Your task to perform on an android device: check storage Image 0: 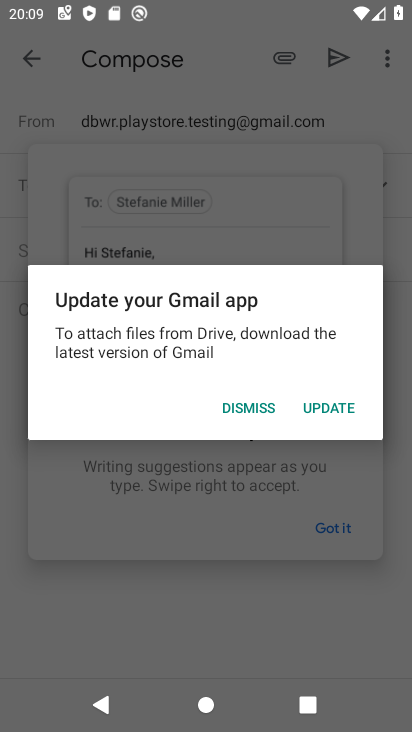
Step 0: press home button
Your task to perform on an android device: check storage Image 1: 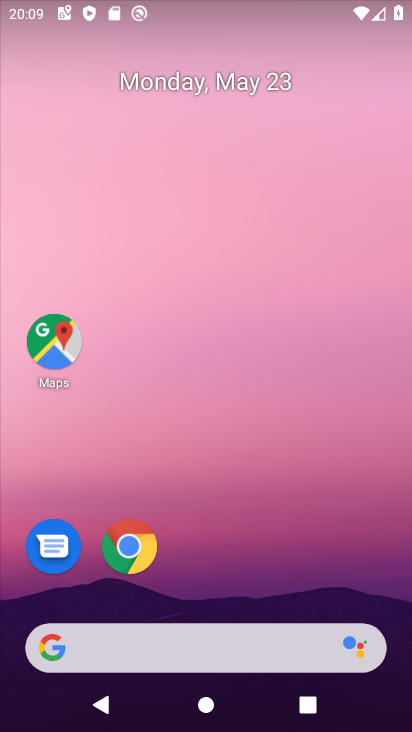
Step 1: drag from (369, 574) to (358, 220)
Your task to perform on an android device: check storage Image 2: 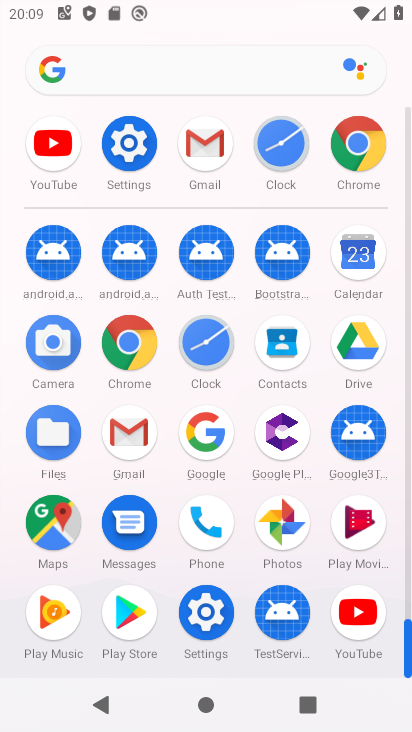
Step 2: click (211, 622)
Your task to perform on an android device: check storage Image 3: 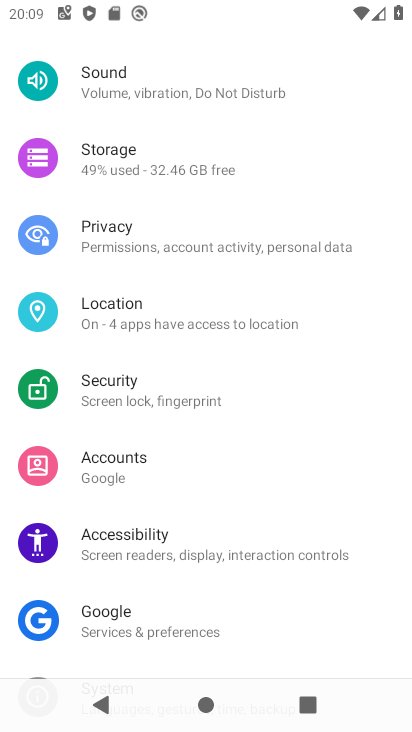
Step 3: drag from (332, 608) to (348, 485)
Your task to perform on an android device: check storage Image 4: 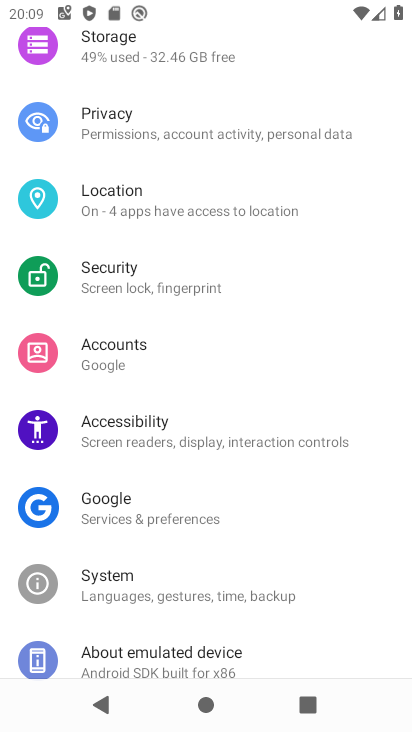
Step 4: drag from (362, 620) to (350, 492)
Your task to perform on an android device: check storage Image 5: 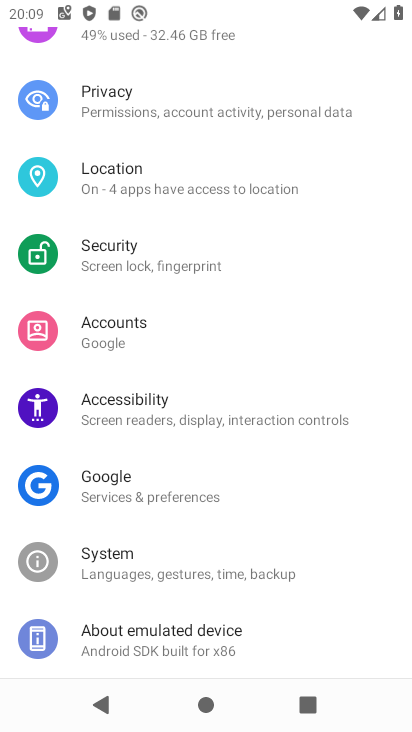
Step 5: drag from (358, 418) to (352, 497)
Your task to perform on an android device: check storage Image 6: 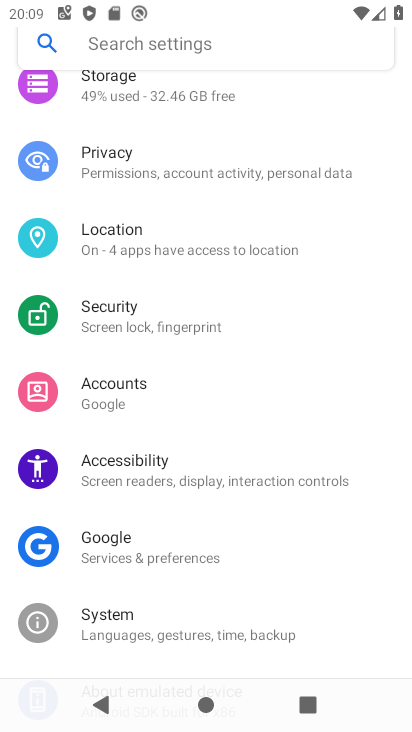
Step 6: drag from (371, 340) to (372, 433)
Your task to perform on an android device: check storage Image 7: 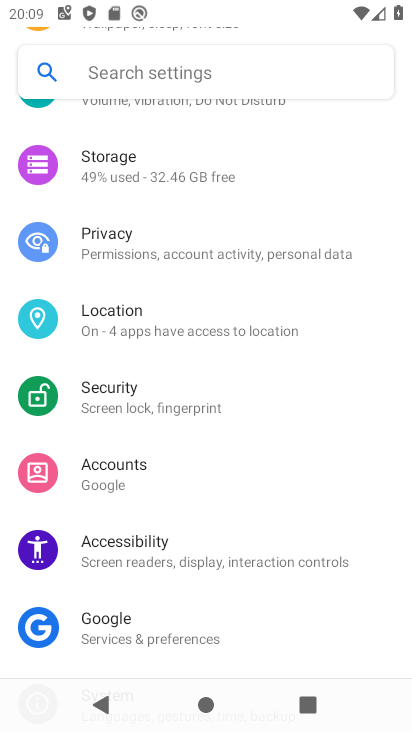
Step 7: drag from (382, 349) to (381, 431)
Your task to perform on an android device: check storage Image 8: 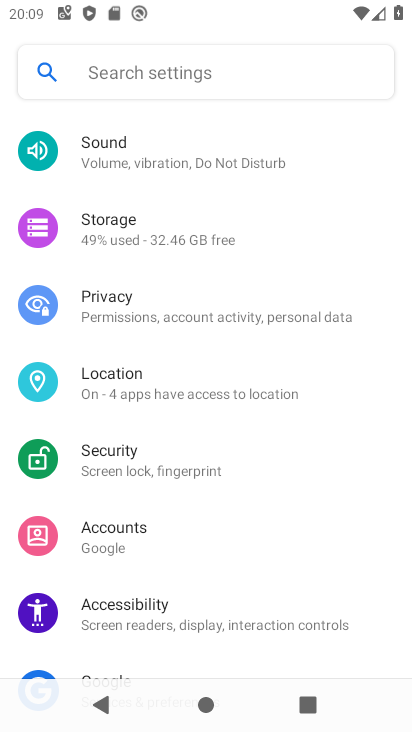
Step 8: drag from (385, 323) to (378, 399)
Your task to perform on an android device: check storage Image 9: 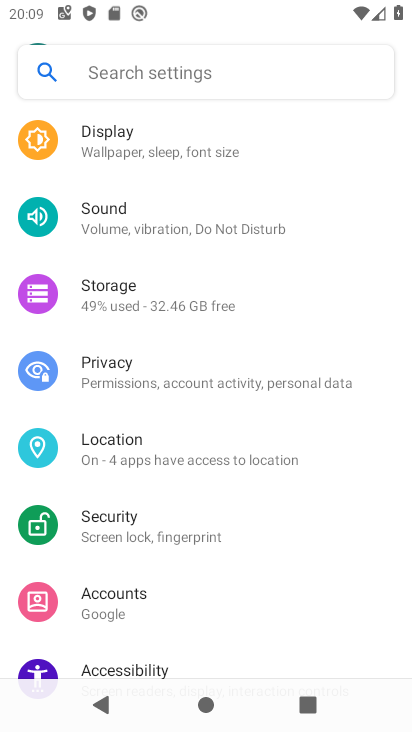
Step 9: drag from (385, 346) to (385, 400)
Your task to perform on an android device: check storage Image 10: 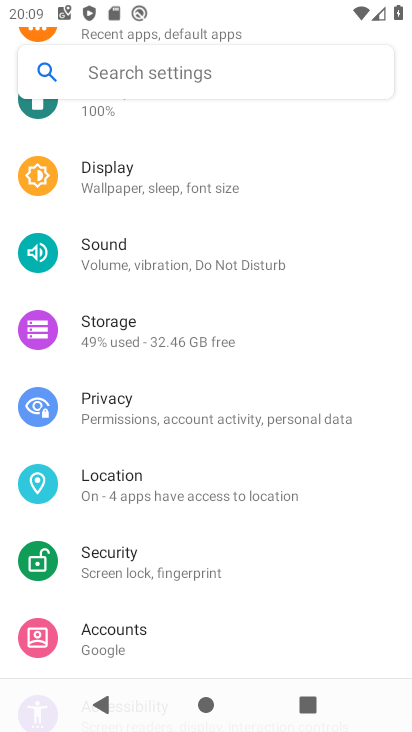
Step 10: drag from (391, 333) to (390, 386)
Your task to perform on an android device: check storage Image 11: 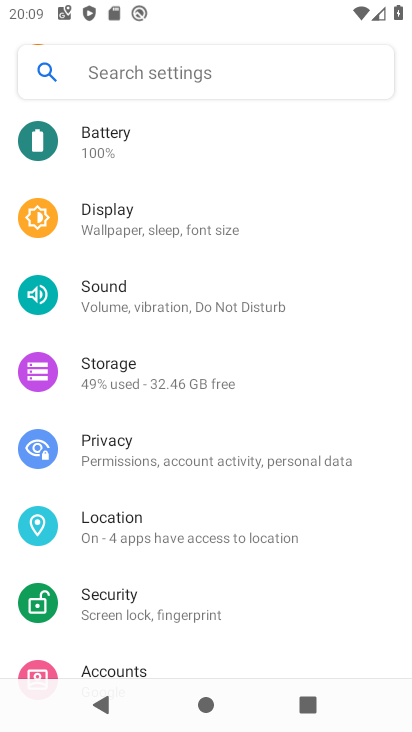
Step 11: drag from (384, 296) to (378, 364)
Your task to perform on an android device: check storage Image 12: 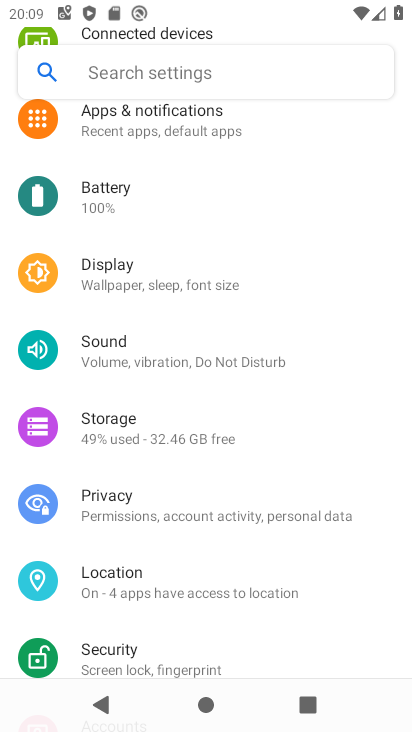
Step 12: drag from (377, 305) to (380, 368)
Your task to perform on an android device: check storage Image 13: 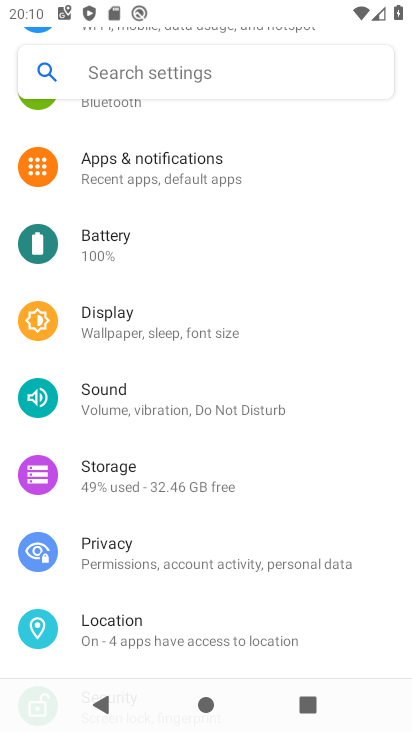
Step 13: drag from (366, 295) to (356, 365)
Your task to perform on an android device: check storage Image 14: 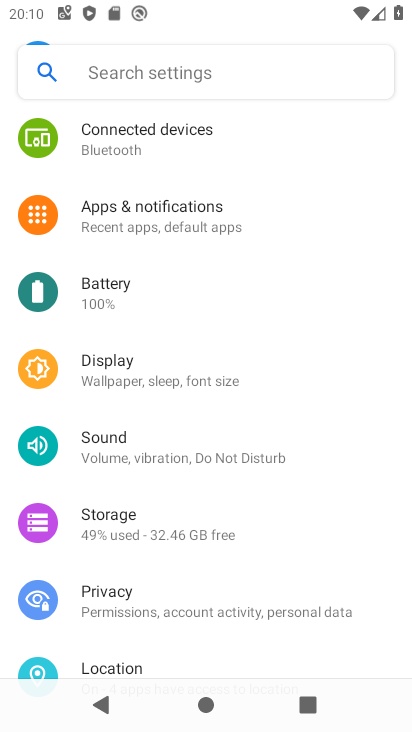
Step 14: drag from (351, 283) to (330, 417)
Your task to perform on an android device: check storage Image 15: 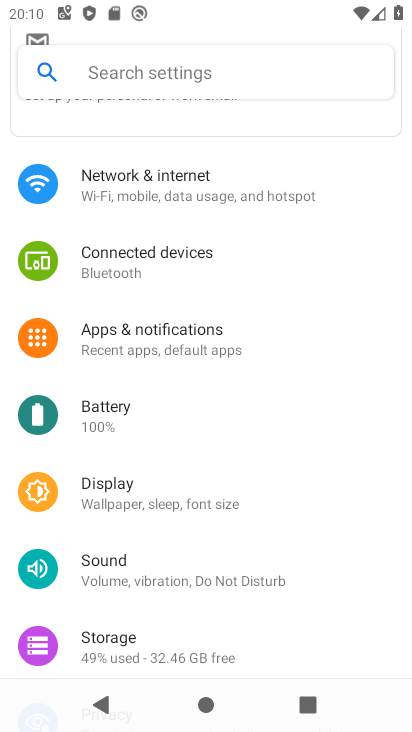
Step 15: drag from (346, 262) to (340, 435)
Your task to perform on an android device: check storage Image 16: 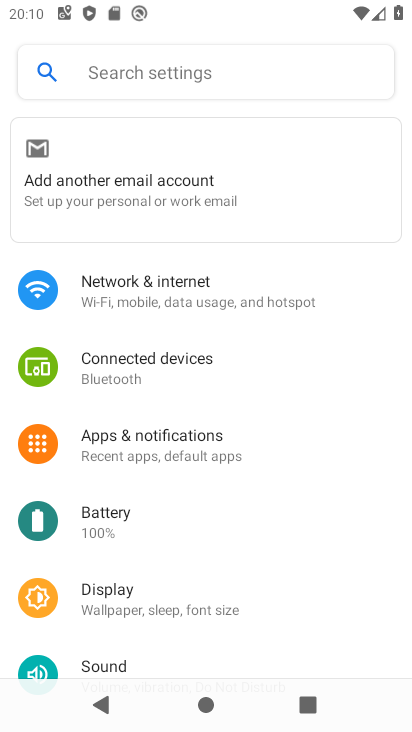
Step 16: drag from (346, 504) to (355, 371)
Your task to perform on an android device: check storage Image 17: 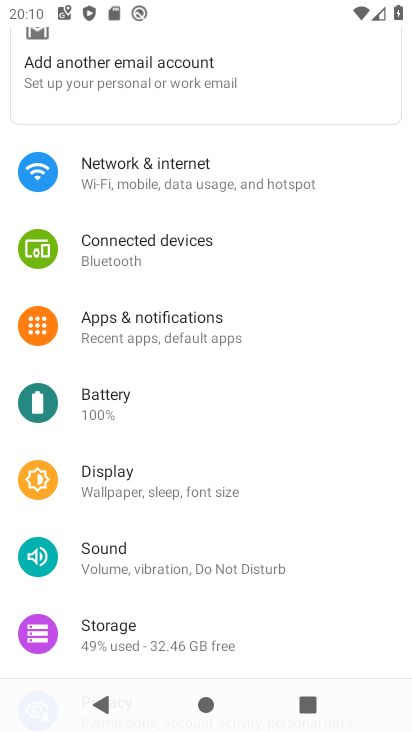
Step 17: drag from (357, 515) to (364, 346)
Your task to perform on an android device: check storage Image 18: 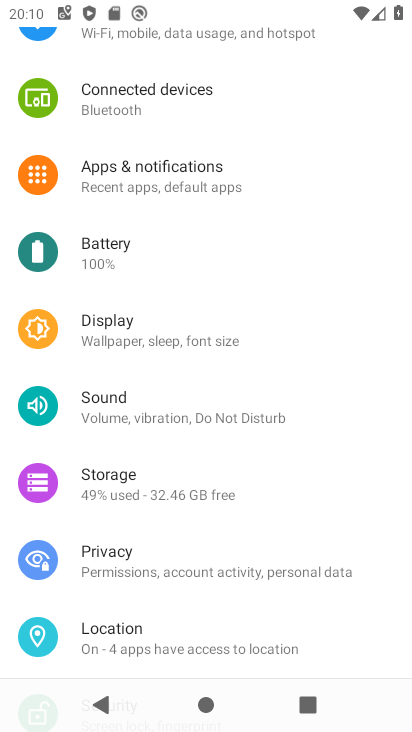
Step 18: drag from (346, 438) to (346, 364)
Your task to perform on an android device: check storage Image 19: 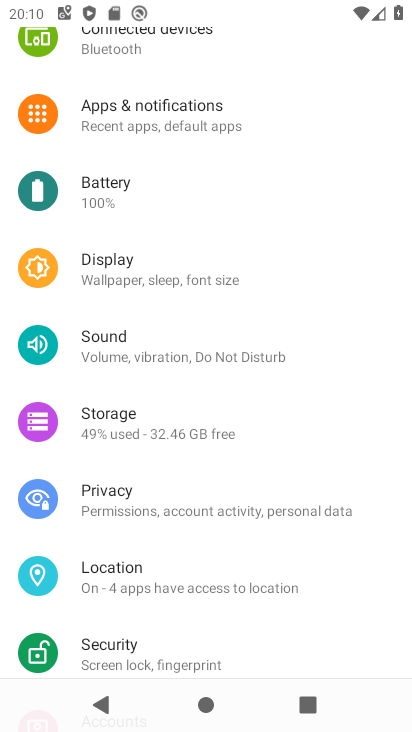
Step 19: click (188, 447)
Your task to perform on an android device: check storage Image 20: 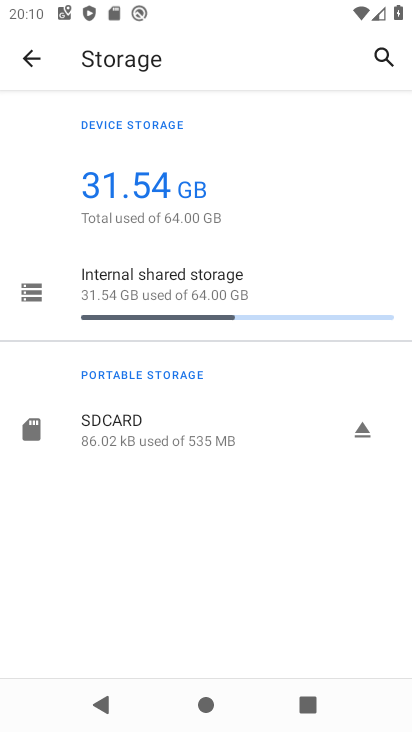
Step 20: task complete